Your task to perform on an android device: What's the news in Uruguay? Image 0: 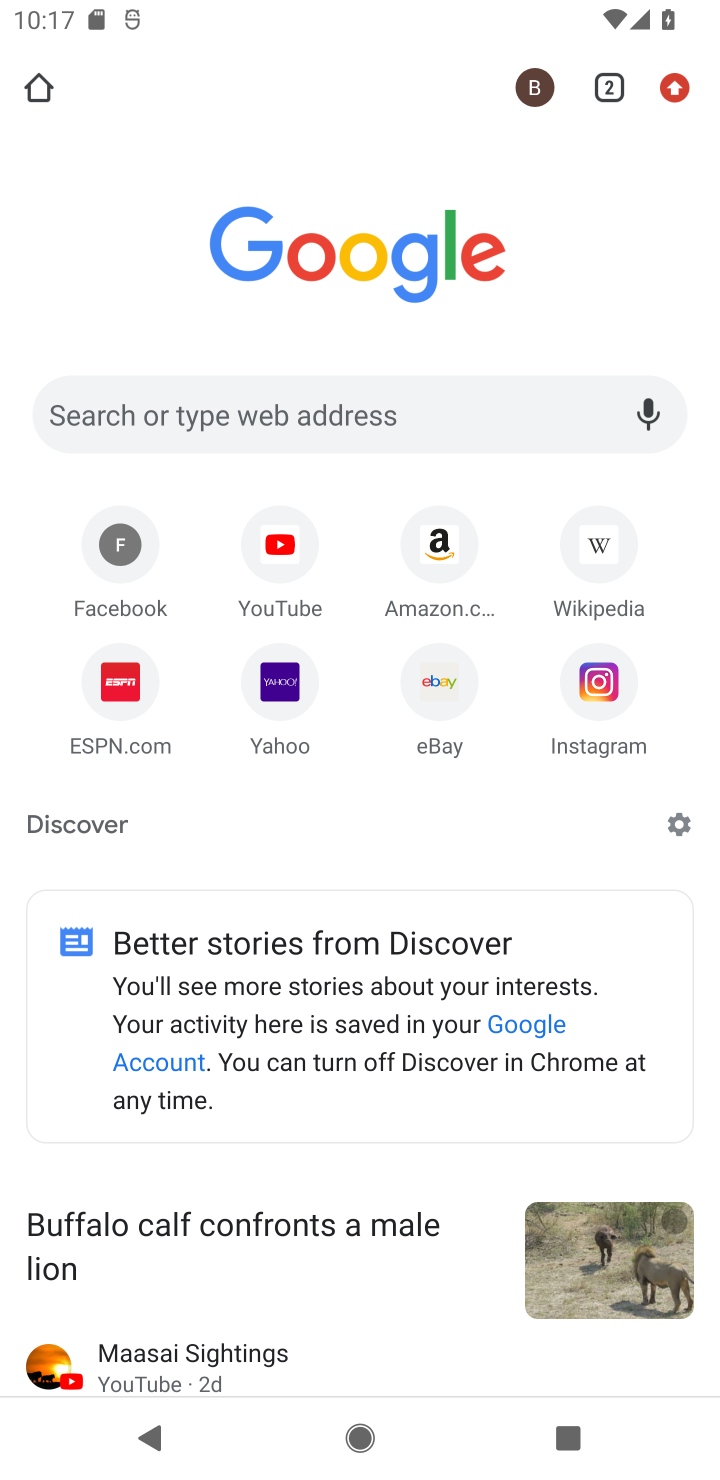
Step 0: press home button
Your task to perform on an android device: What's the news in Uruguay? Image 1: 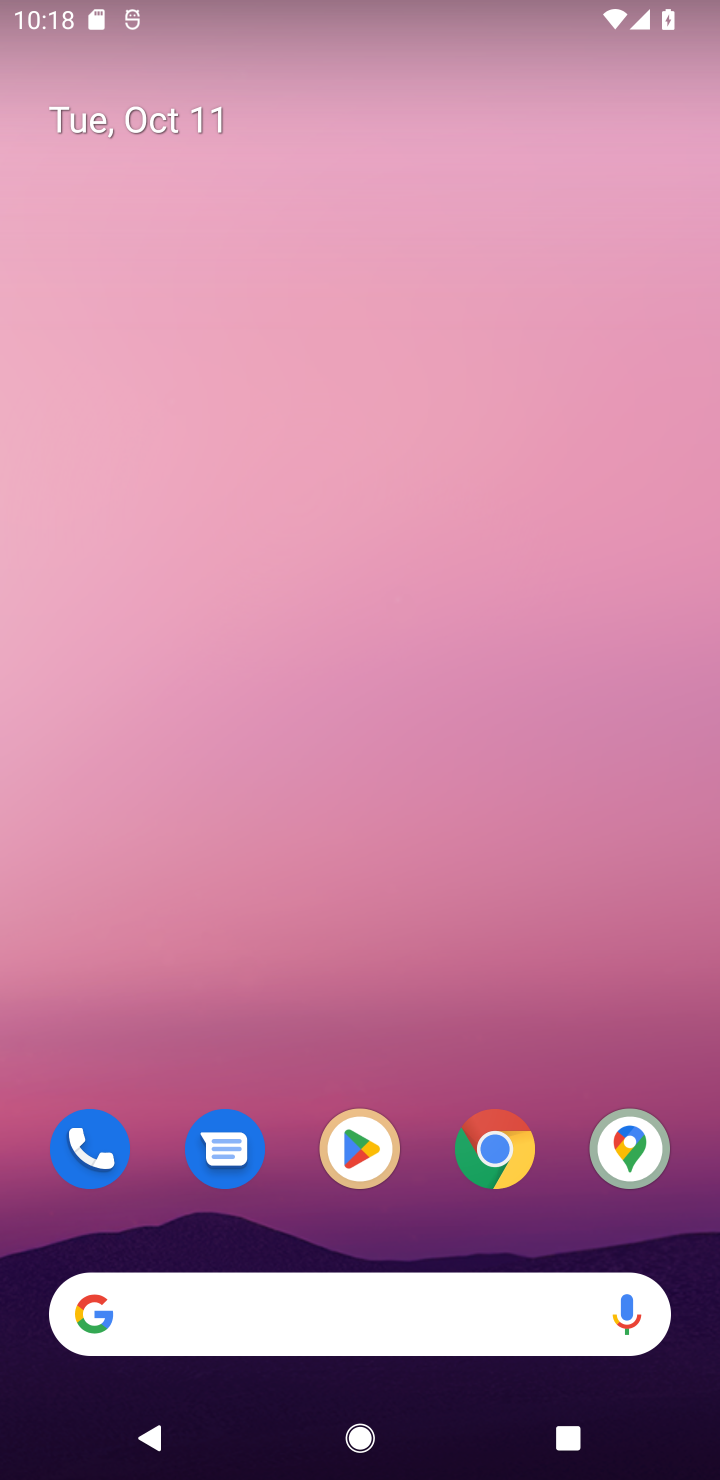
Step 1: drag from (343, 1191) to (347, 83)
Your task to perform on an android device: What's the news in Uruguay? Image 2: 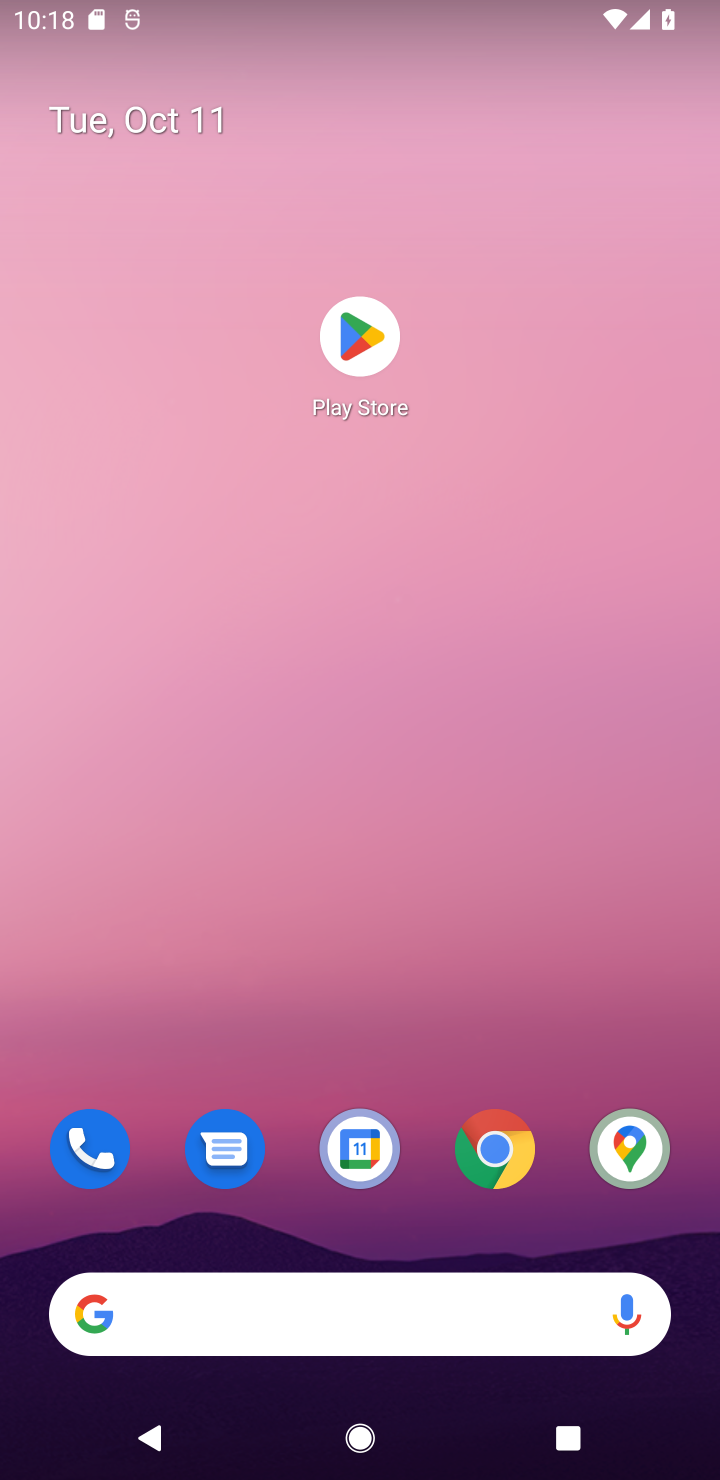
Step 2: drag from (382, 907) to (312, 326)
Your task to perform on an android device: What's the news in Uruguay? Image 3: 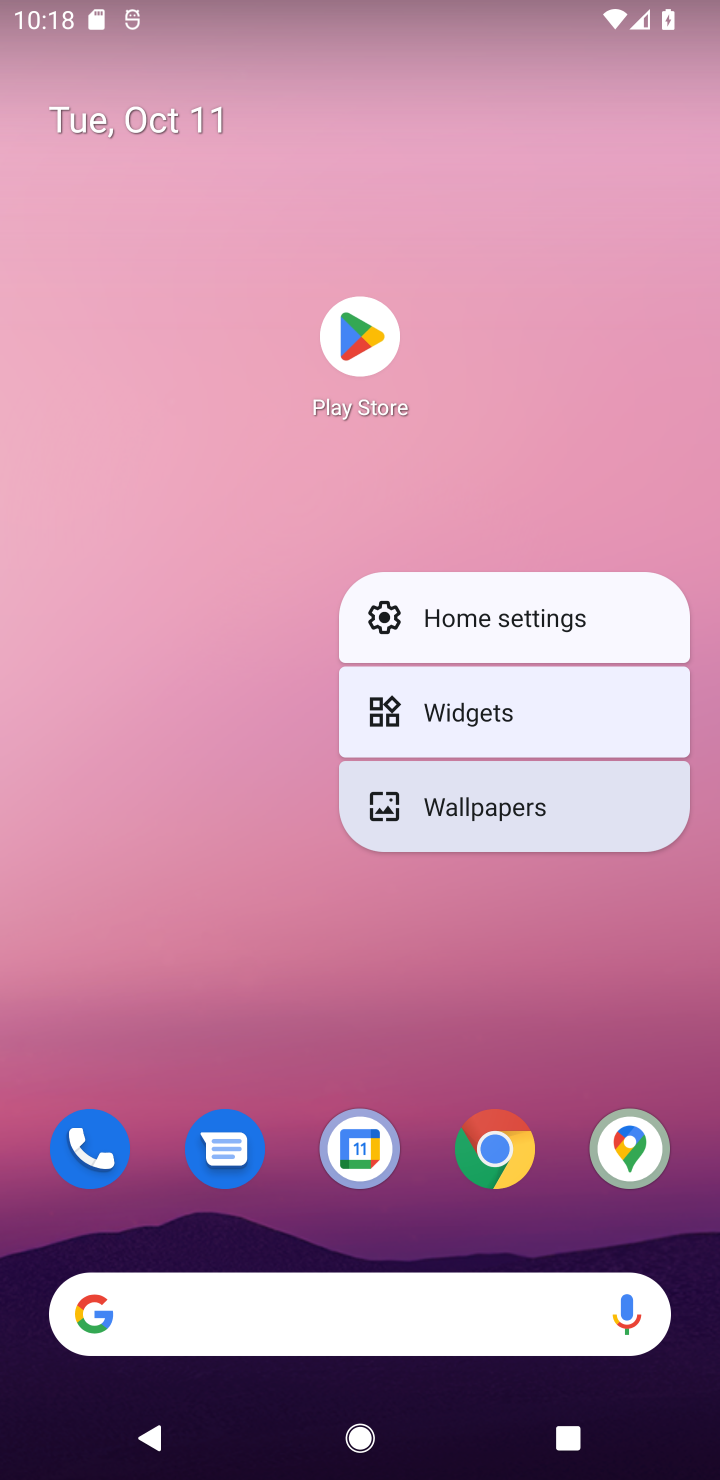
Step 3: drag from (374, 1191) to (321, 317)
Your task to perform on an android device: What's the news in Uruguay? Image 4: 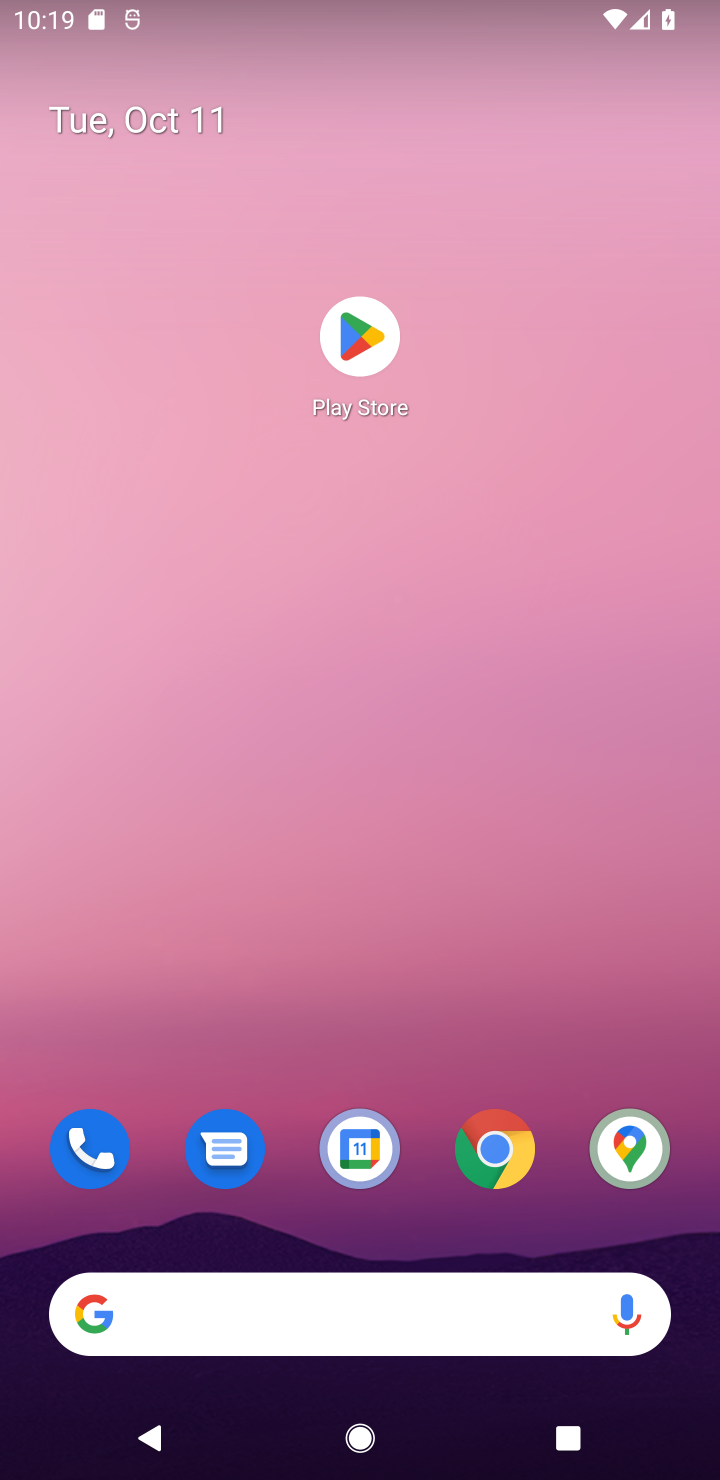
Step 4: click (312, 1316)
Your task to perform on an android device: What's the news in Uruguay? Image 5: 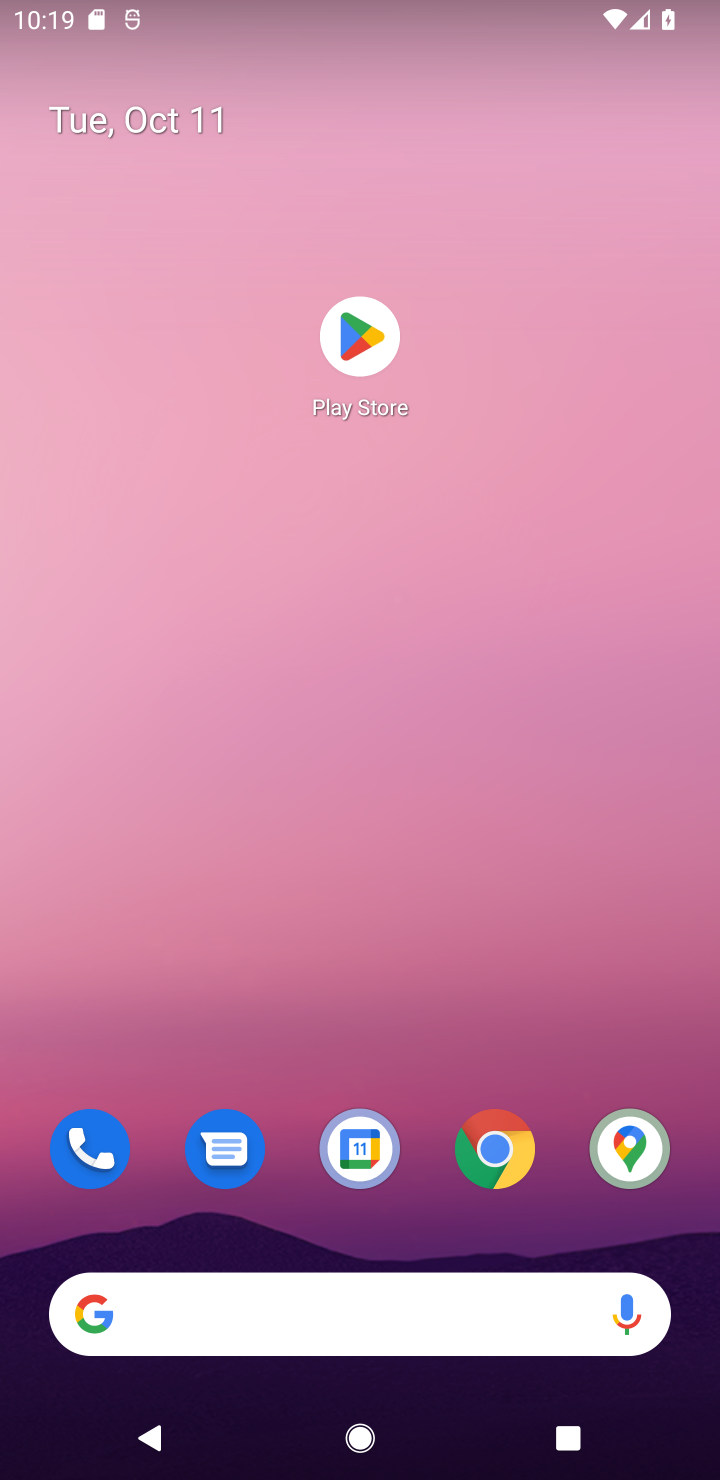
Step 5: click (312, 1335)
Your task to perform on an android device: What's the news in Uruguay? Image 6: 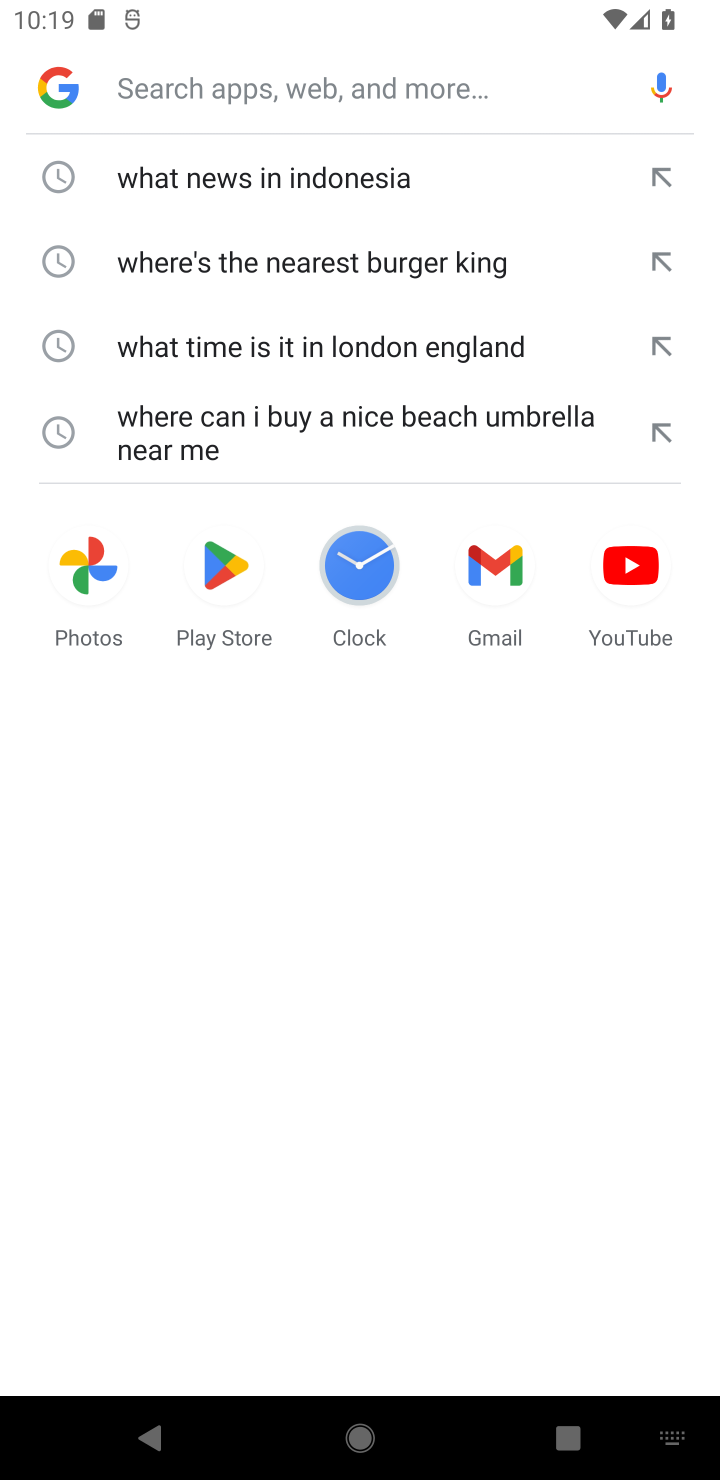
Step 6: type "What's the news in Uruguay?"
Your task to perform on an android device: What's the news in Uruguay? Image 7: 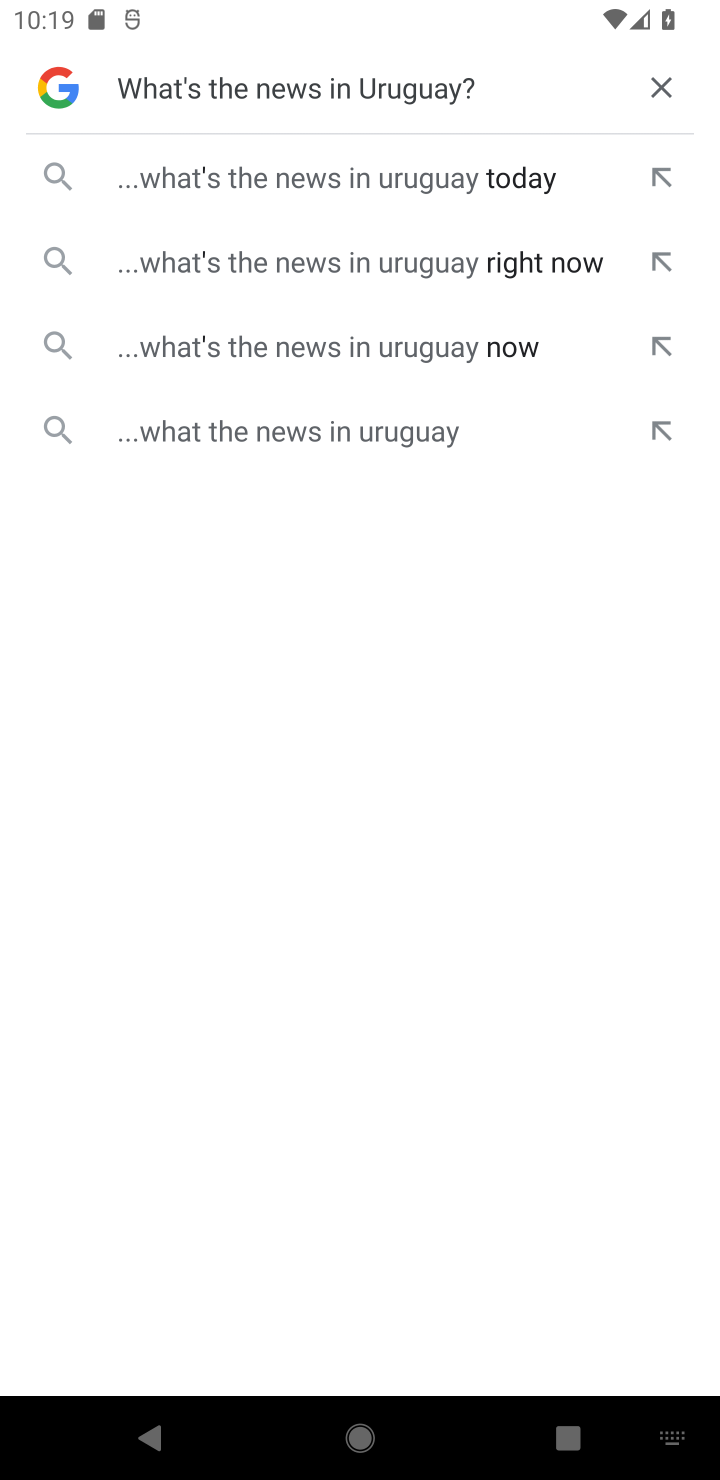
Step 7: click (419, 185)
Your task to perform on an android device: What's the news in Uruguay? Image 8: 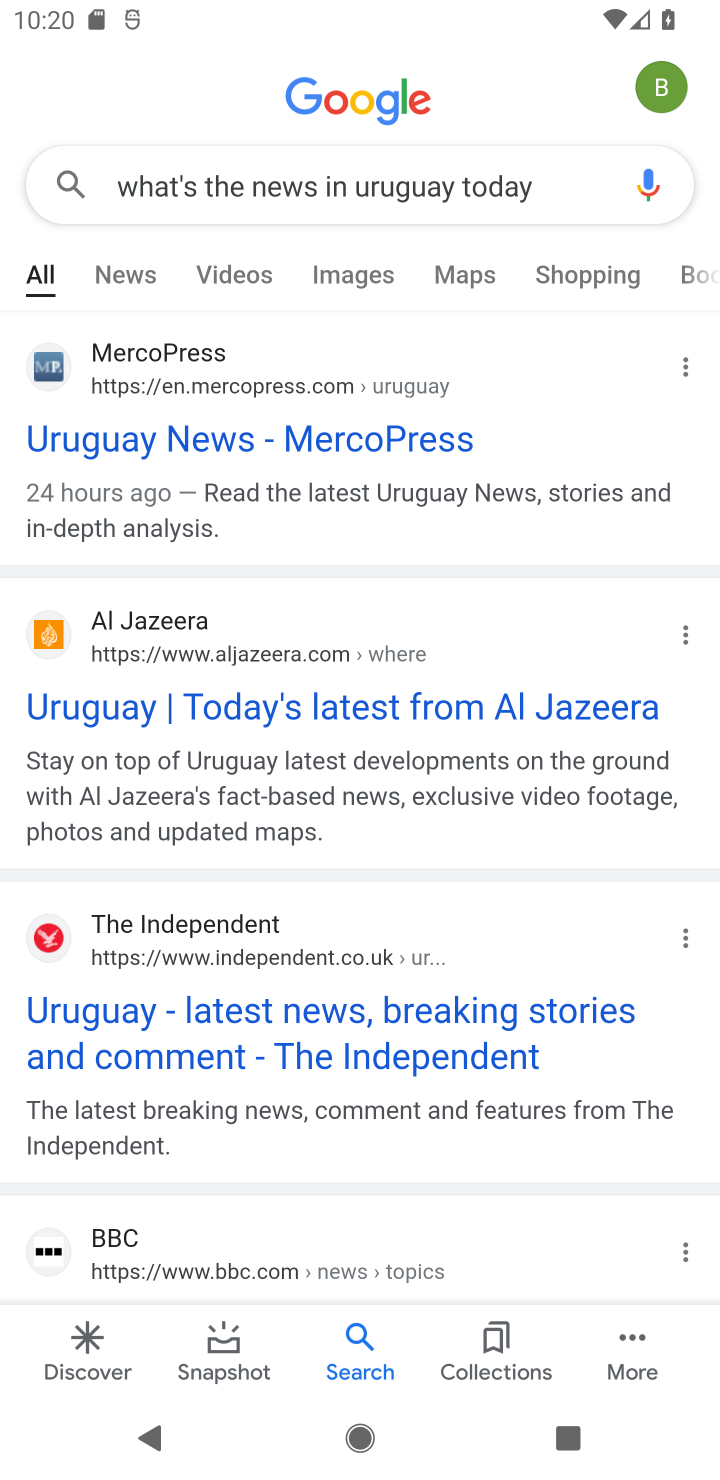
Step 8: click (105, 275)
Your task to perform on an android device: What's the news in Uruguay? Image 9: 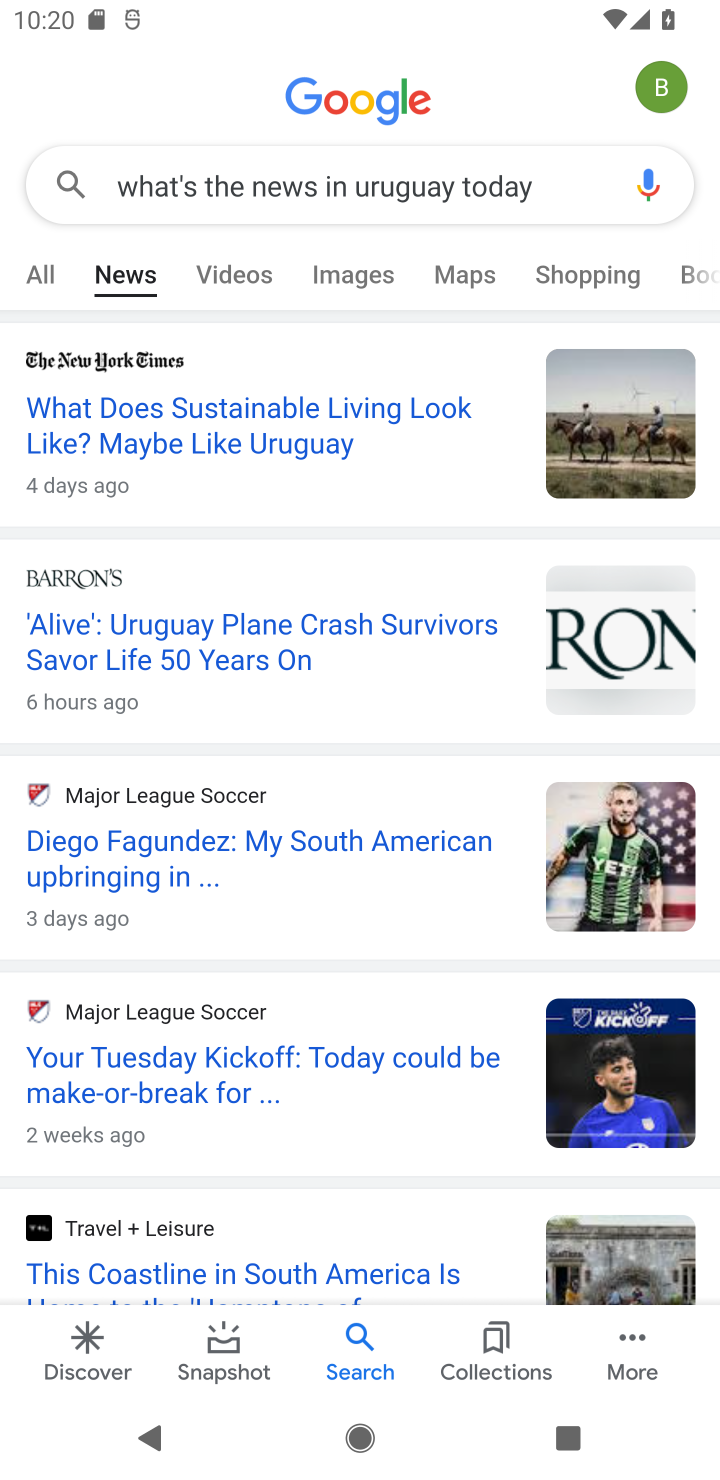
Step 9: task complete